Your task to perform on an android device: Open display settings Image 0: 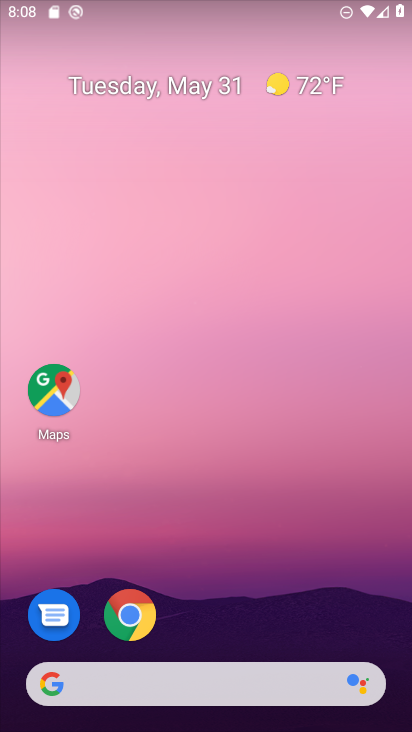
Step 0: drag from (236, 617) to (262, 41)
Your task to perform on an android device: Open display settings Image 1: 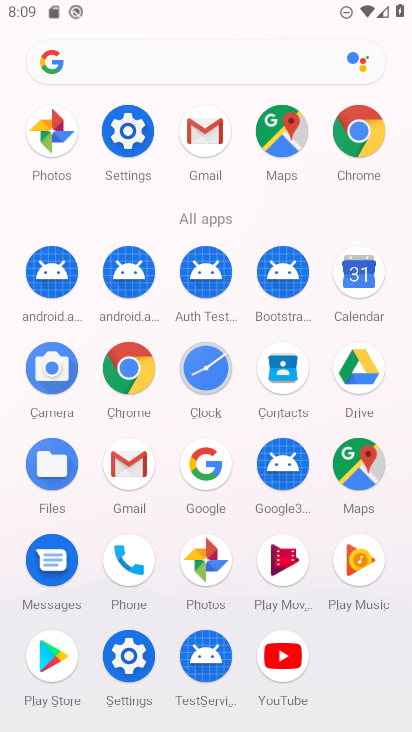
Step 1: click (128, 147)
Your task to perform on an android device: Open display settings Image 2: 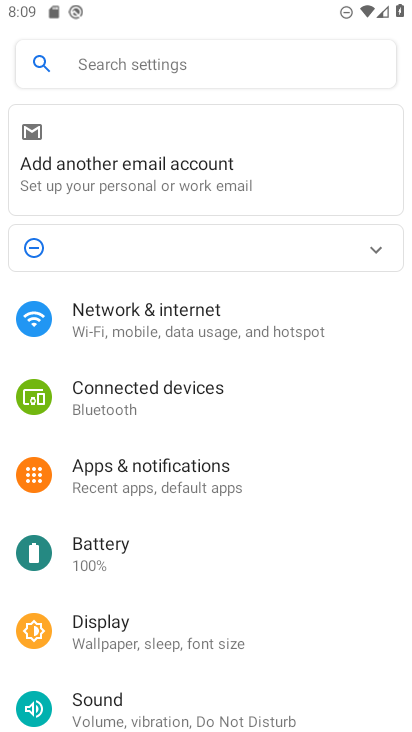
Step 2: click (160, 642)
Your task to perform on an android device: Open display settings Image 3: 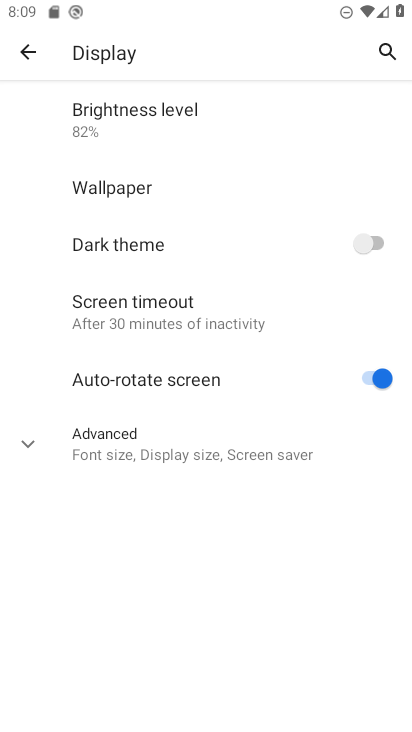
Step 3: task complete